Your task to perform on an android device: add a label to a message in the gmail app Image 0: 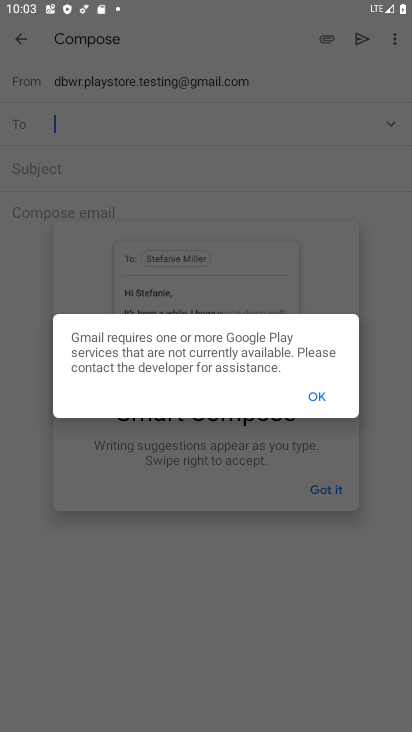
Step 0: press home button
Your task to perform on an android device: add a label to a message in the gmail app Image 1: 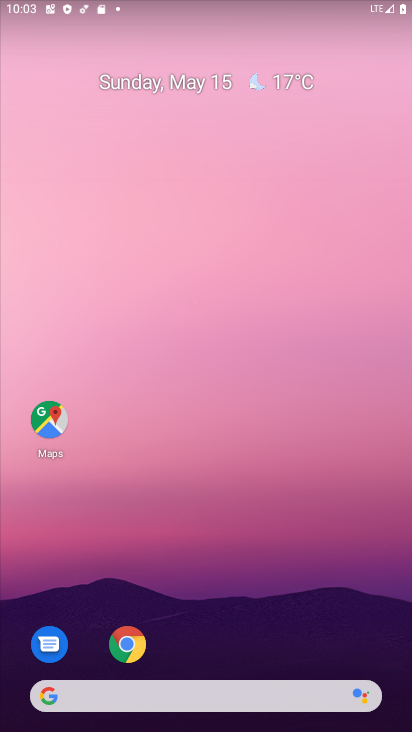
Step 1: drag from (192, 717) to (228, 171)
Your task to perform on an android device: add a label to a message in the gmail app Image 2: 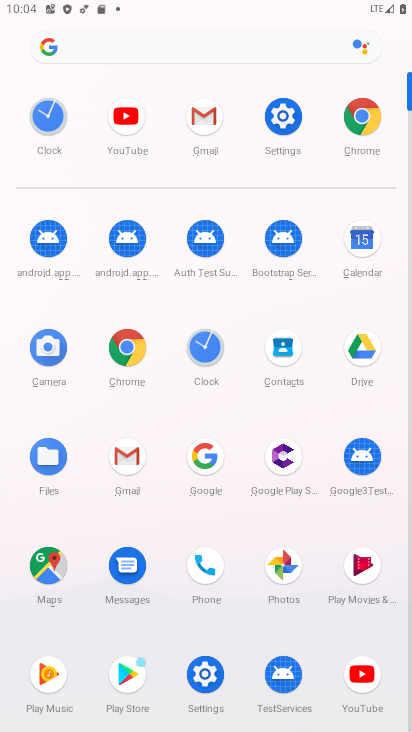
Step 2: click (195, 118)
Your task to perform on an android device: add a label to a message in the gmail app Image 3: 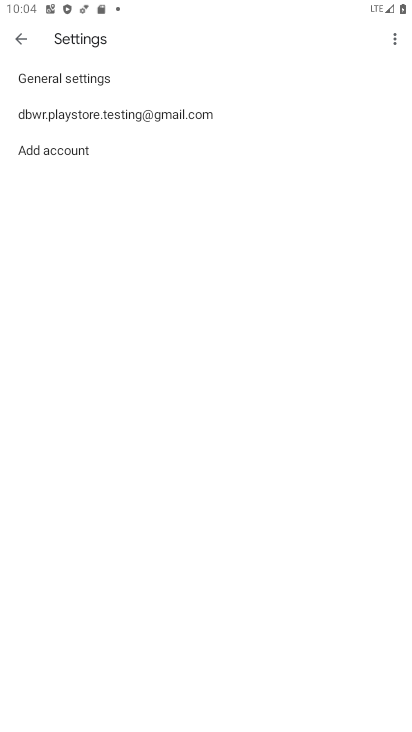
Step 3: click (153, 126)
Your task to perform on an android device: add a label to a message in the gmail app Image 4: 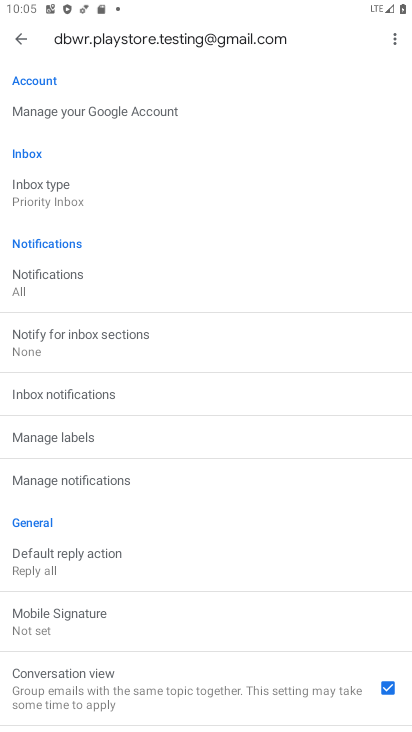
Step 4: click (61, 425)
Your task to perform on an android device: add a label to a message in the gmail app Image 5: 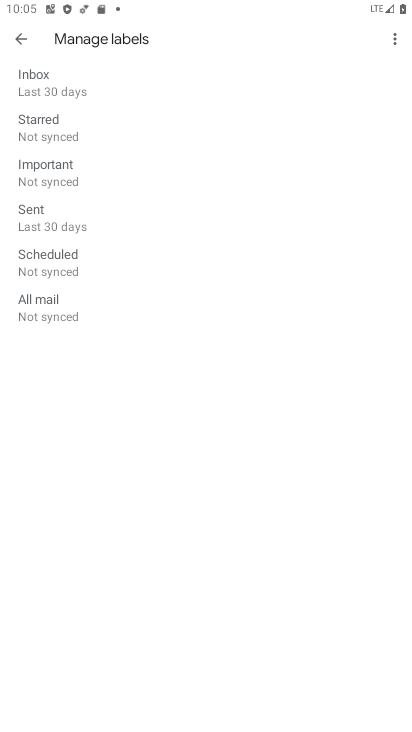
Step 5: click (106, 189)
Your task to perform on an android device: add a label to a message in the gmail app Image 6: 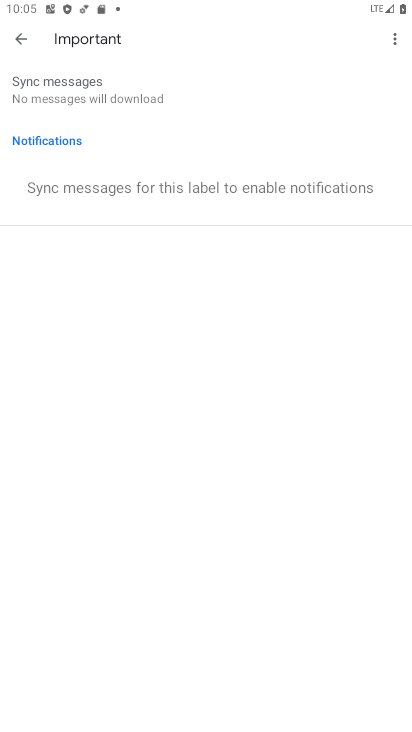
Step 6: task complete